Your task to perform on an android device: open a new tab in the chrome app Image 0: 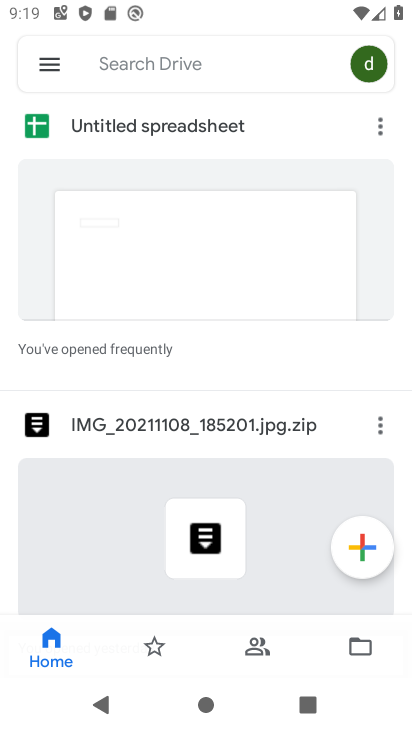
Step 0: press home button
Your task to perform on an android device: open a new tab in the chrome app Image 1: 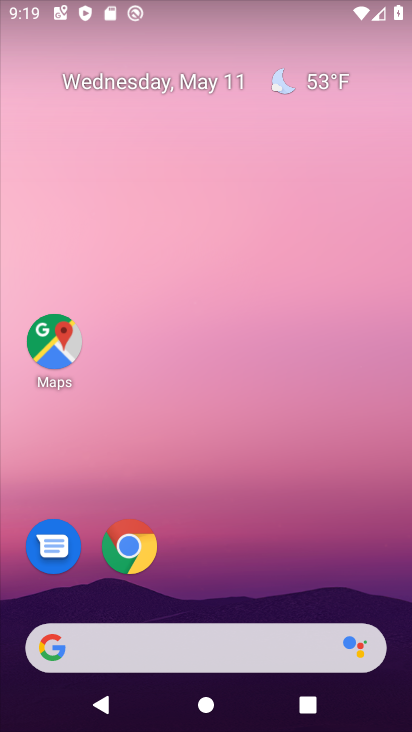
Step 1: drag from (392, 643) to (289, 125)
Your task to perform on an android device: open a new tab in the chrome app Image 2: 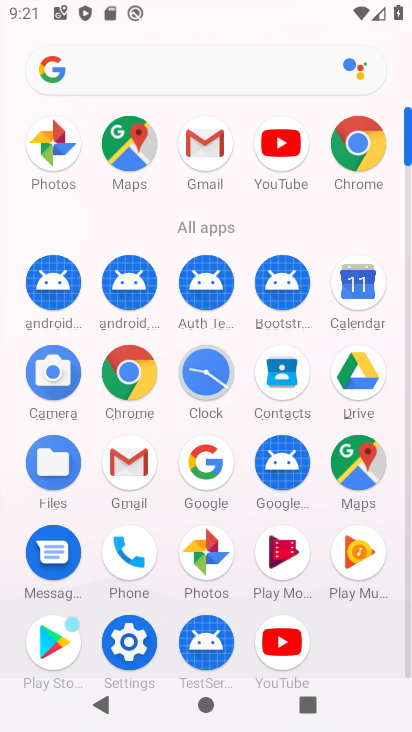
Step 2: click (362, 144)
Your task to perform on an android device: open a new tab in the chrome app Image 3: 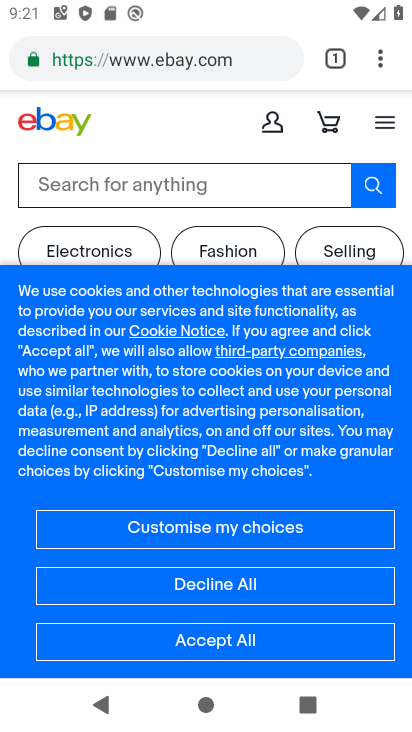
Step 3: press back button
Your task to perform on an android device: open a new tab in the chrome app Image 4: 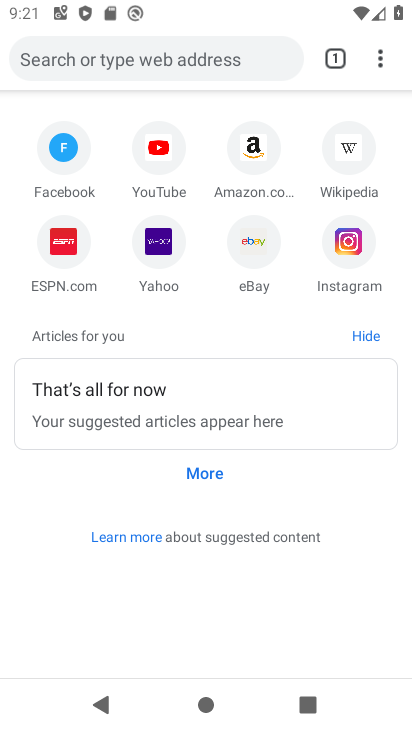
Step 4: click (375, 57)
Your task to perform on an android device: open a new tab in the chrome app Image 5: 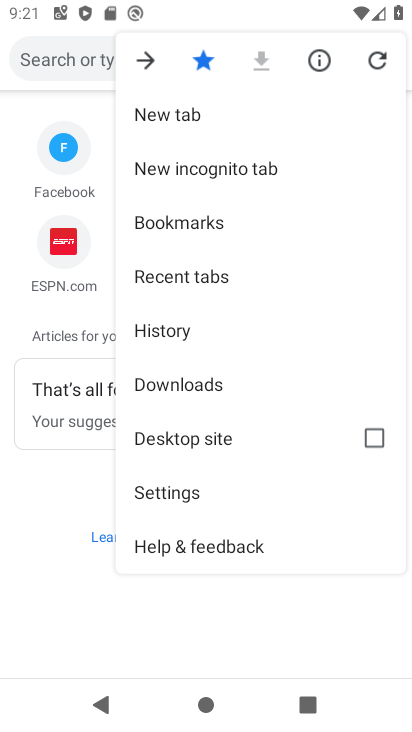
Step 5: click (250, 103)
Your task to perform on an android device: open a new tab in the chrome app Image 6: 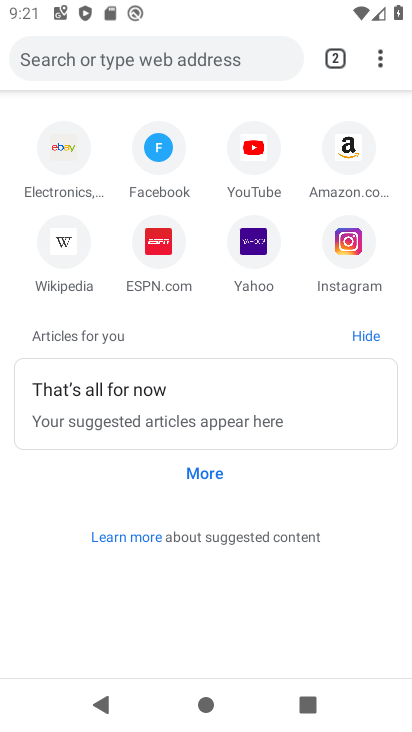
Step 6: task complete